Your task to perform on an android device: Open my contact list Image 0: 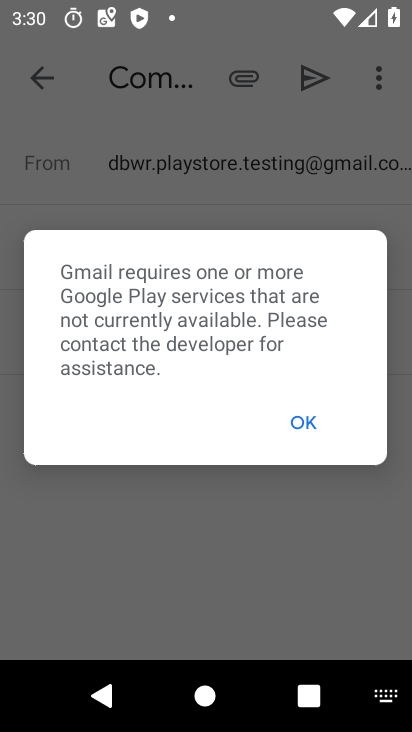
Step 0: press home button
Your task to perform on an android device: Open my contact list Image 1: 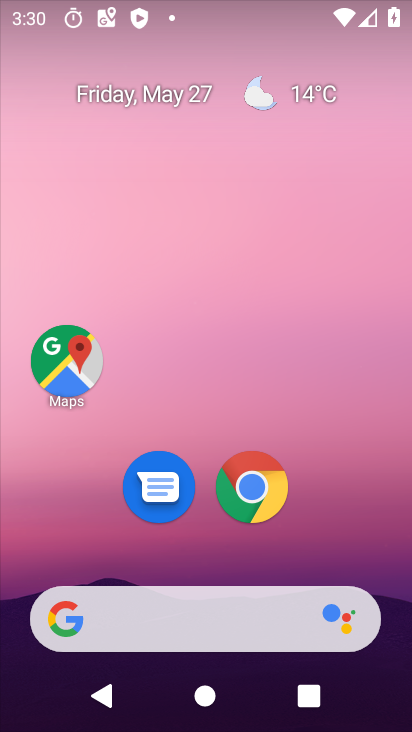
Step 1: drag from (333, 441) to (289, 85)
Your task to perform on an android device: Open my contact list Image 2: 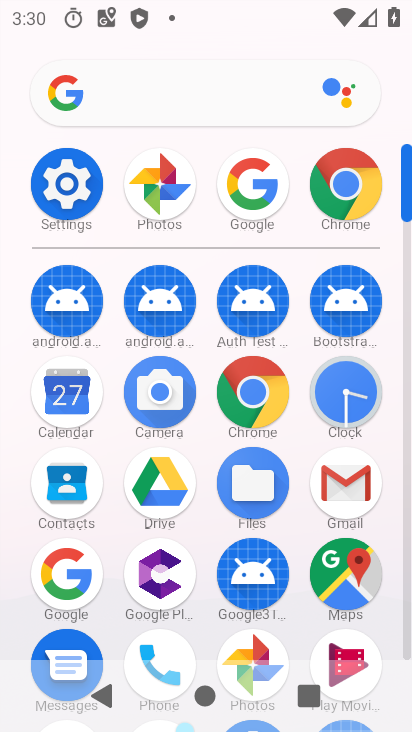
Step 2: click (52, 482)
Your task to perform on an android device: Open my contact list Image 3: 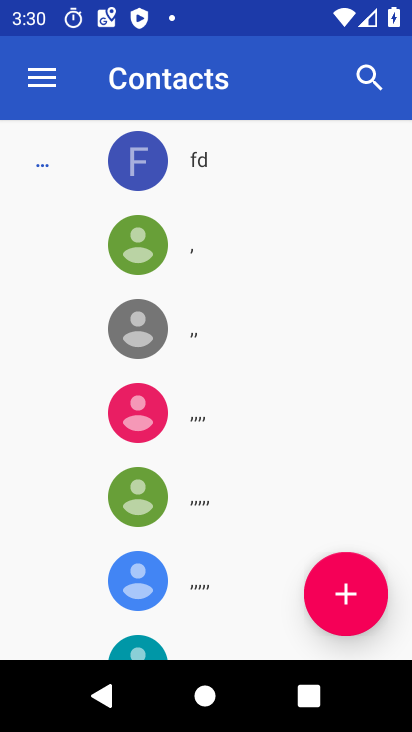
Step 3: task complete